Your task to perform on an android device: Open display settings Image 0: 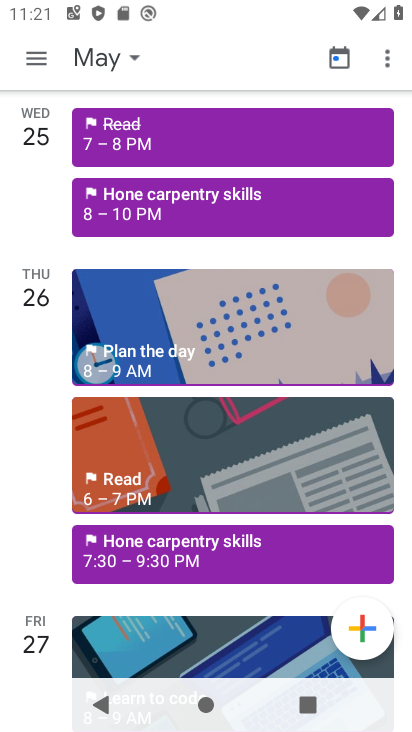
Step 0: press home button
Your task to perform on an android device: Open display settings Image 1: 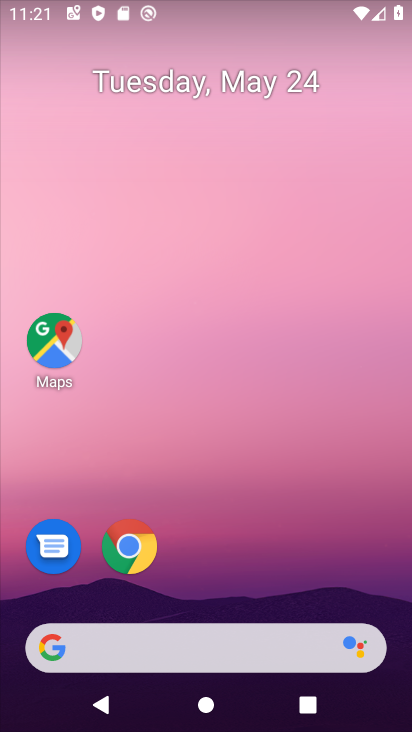
Step 1: drag from (216, 582) to (212, 75)
Your task to perform on an android device: Open display settings Image 2: 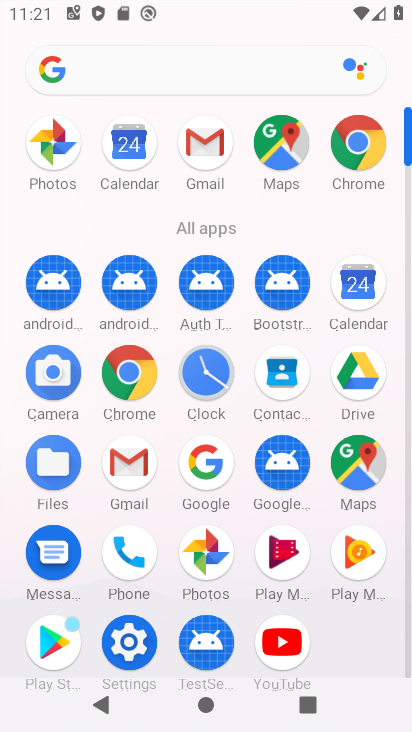
Step 2: click (128, 655)
Your task to perform on an android device: Open display settings Image 3: 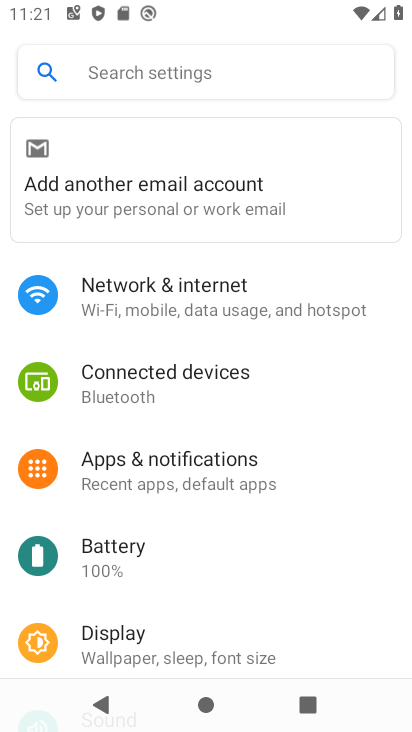
Step 3: click (128, 655)
Your task to perform on an android device: Open display settings Image 4: 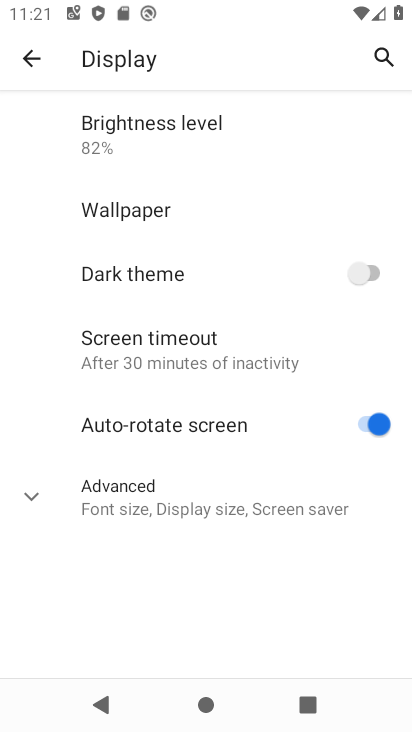
Step 4: task complete